Your task to perform on an android device: What's the weather today? Image 0: 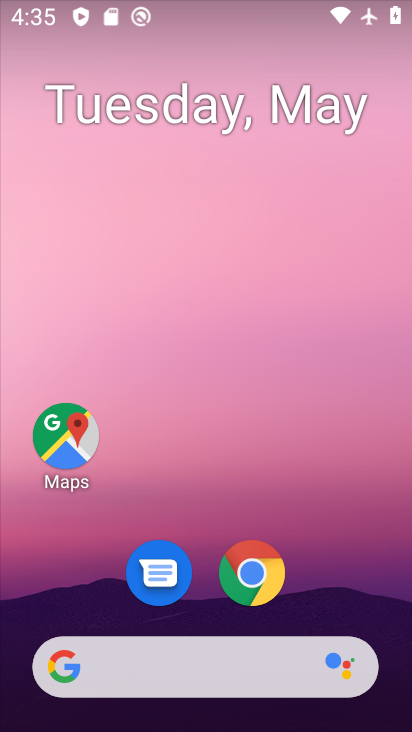
Step 0: drag from (314, 478) to (326, 132)
Your task to perform on an android device: What's the weather today? Image 1: 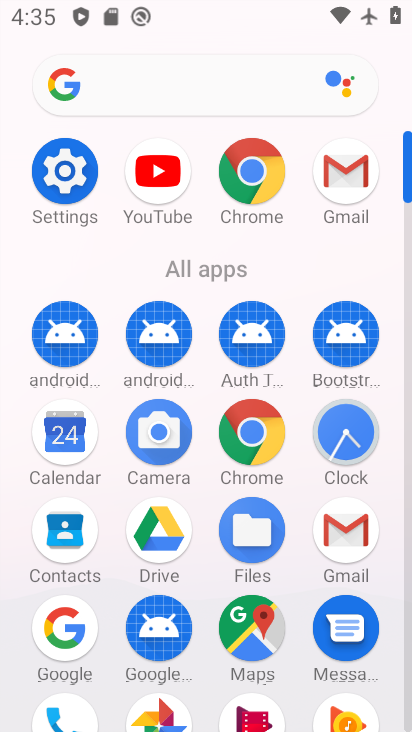
Step 1: click (259, 179)
Your task to perform on an android device: What's the weather today? Image 2: 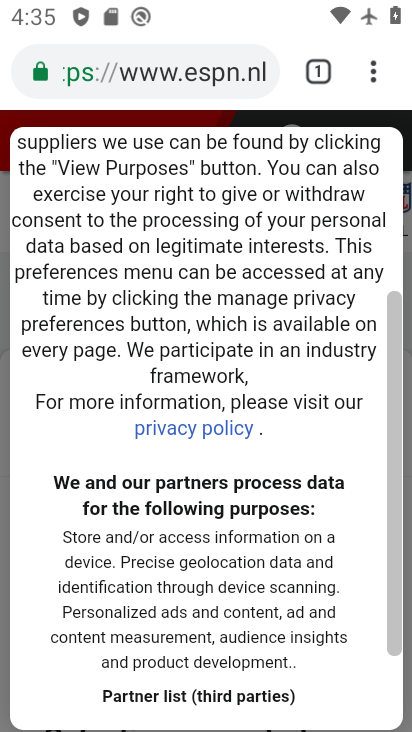
Step 2: click (201, 71)
Your task to perform on an android device: What's the weather today? Image 3: 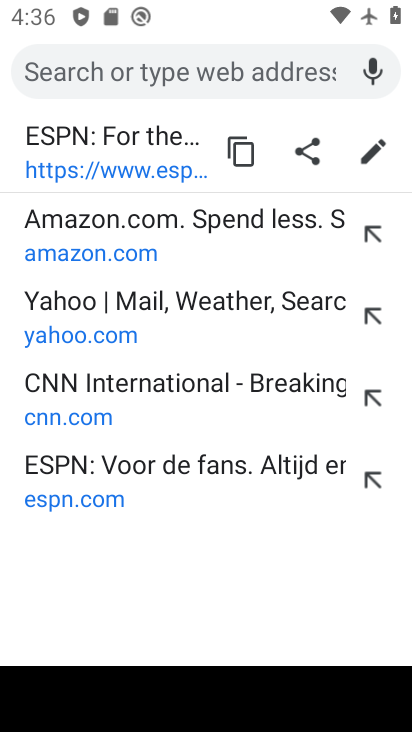
Step 3: type "weather"
Your task to perform on an android device: What's the weather today? Image 4: 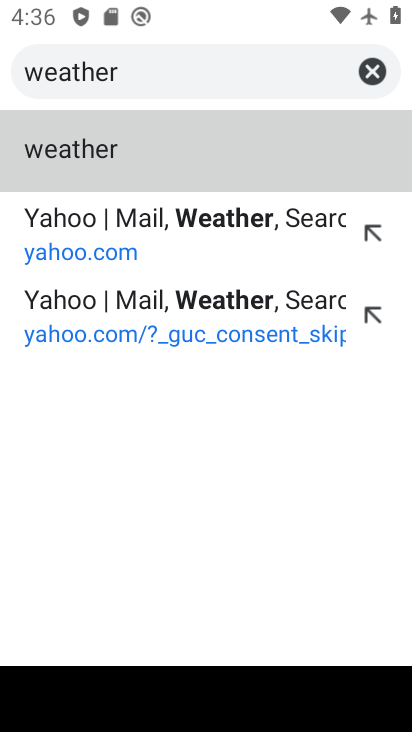
Step 4: click (60, 149)
Your task to perform on an android device: What's the weather today? Image 5: 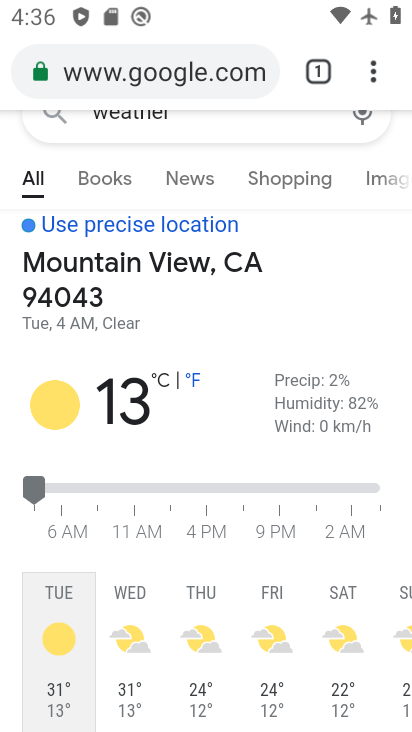
Step 5: task complete